Your task to perform on an android device: check android version Image 0: 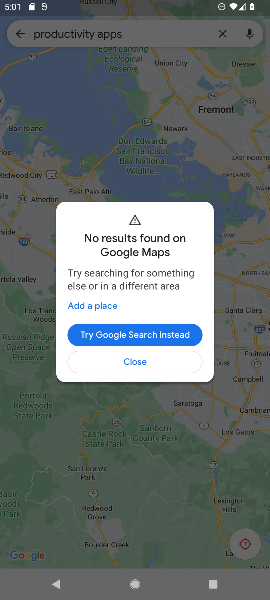
Step 0: press back button
Your task to perform on an android device: check android version Image 1: 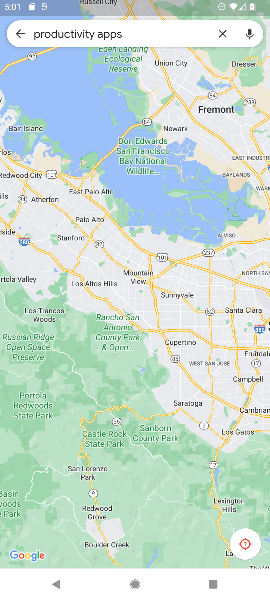
Step 1: press back button
Your task to perform on an android device: check android version Image 2: 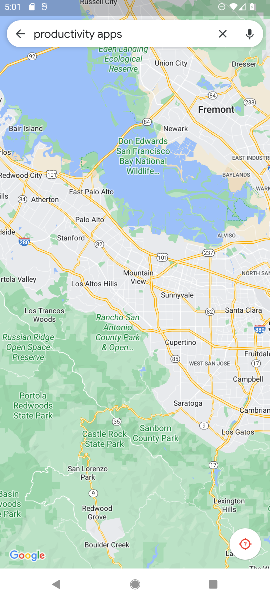
Step 2: press back button
Your task to perform on an android device: check android version Image 3: 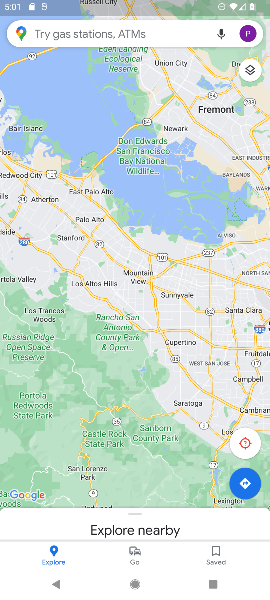
Step 3: press back button
Your task to perform on an android device: check android version Image 4: 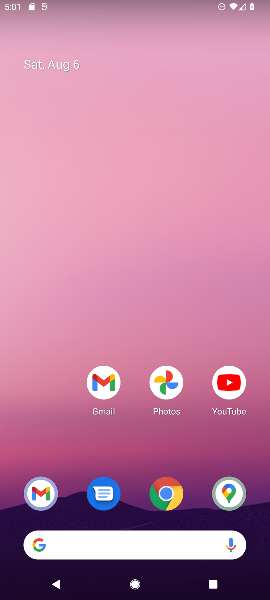
Step 4: drag from (155, 428) to (51, 158)
Your task to perform on an android device: check android version Image 5: 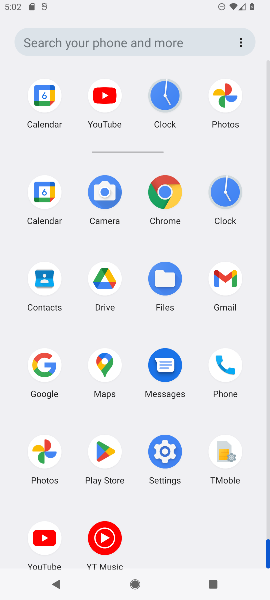
Step 5: click (170, 454)
Your task to perform on an android device: check android version Image 6: 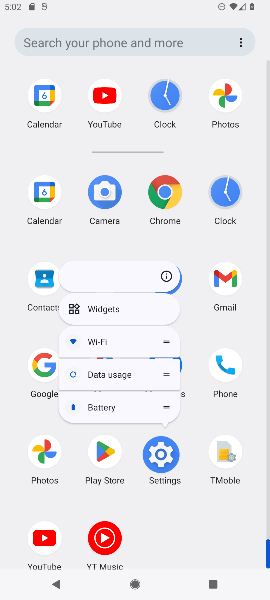
Step 6: click (166, 457)
Your task to perform on an android device: check android version Image 7: 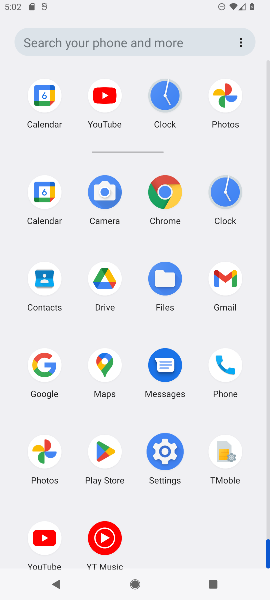
Step 7: click (166, 457)
Your task to perform on an android device: check android version Image 8: 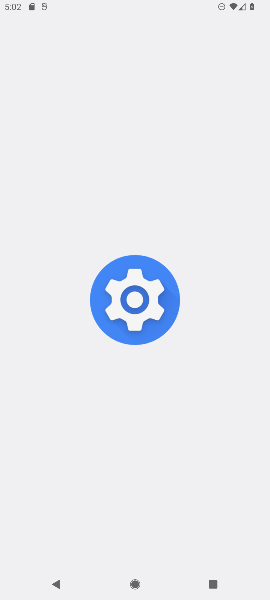
Step 8: click (166, 457)
Your task to perform on an android device: check android version Image 9: 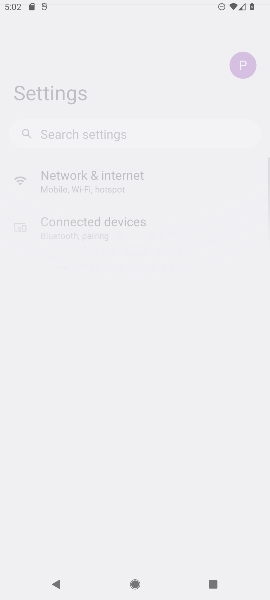
Step 9: click (166, 457)
Your task to perform on an android device: check android version Image 10: 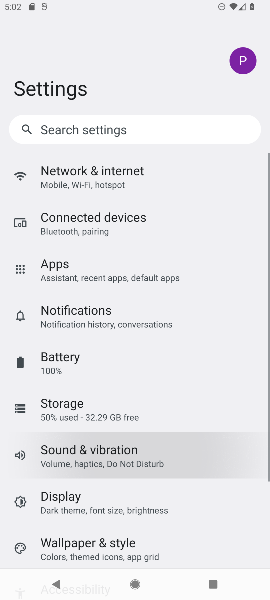
Step 10: click (166, 457)
Your task to perform on an android device: check android version Image 11: 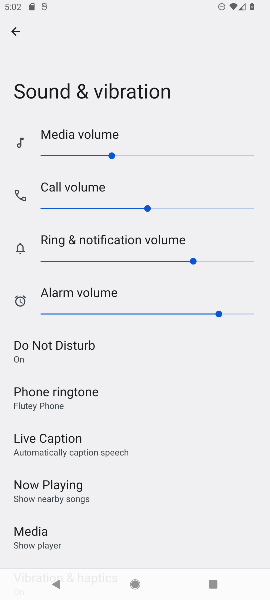
Step 11: drag from (59, 204) to (88, 216)
Your task to perform on an android device: check android version Image 12: 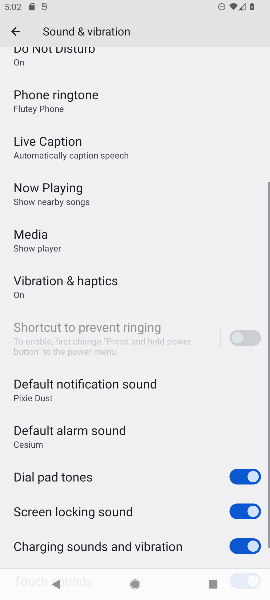
Step 12: click (8, 30)
Your task to perform on an android device: check android version Image 13: 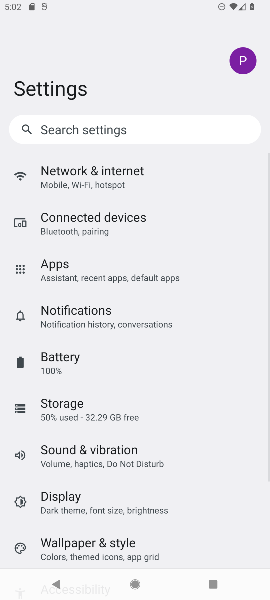
Step 13: drag from (102, 436) to (100, 317)
Your task to perform on an android device: check android version Image 14: 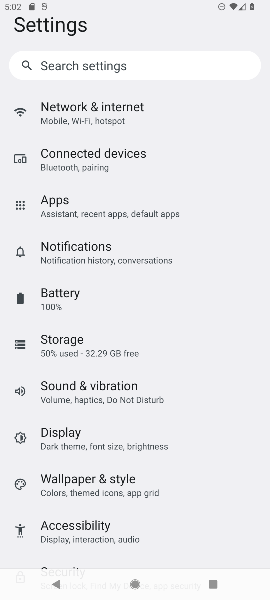
Step 14: drag from (131, 502) to (144, 296)
Your task to perform on an android device: check android version Image 15: 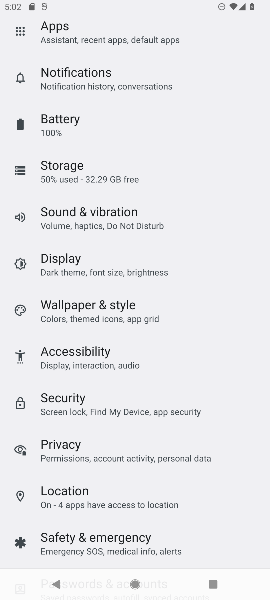
Step 15: drag from (131, 470) to (104, 308)
Your task to perform on an android device: check android version Image 16: 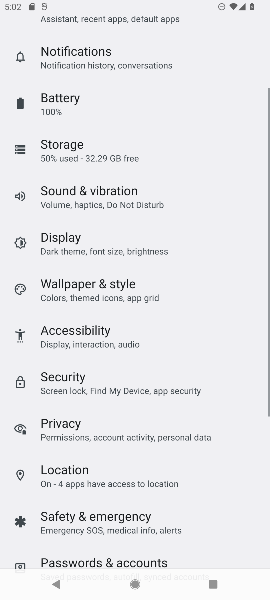
Step 16: drag from (113, 409) to (111, 163)
Your task to perform on an android device: check android version Image 17: 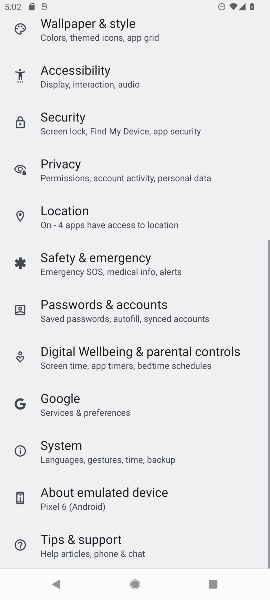
Step 17: drag from (131, 355) to (142, 239)
Your task to perform on an android device: check android version Image 18: 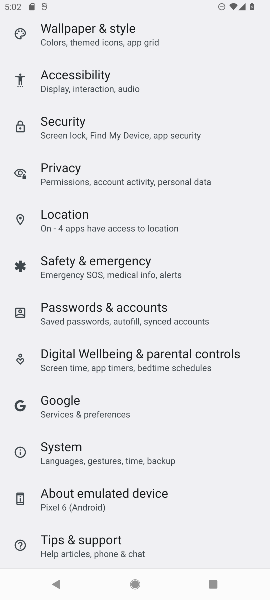
Step 18: click (94, 494)
Your task to perform on an android device: check android version Image 19: 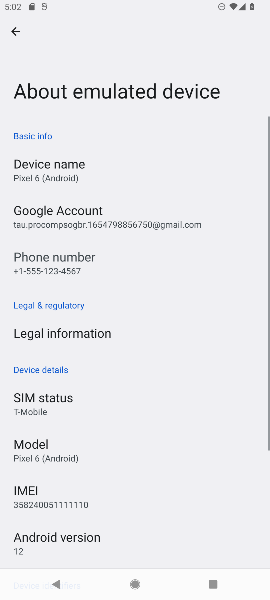
Step 19: task complete